Your task to perform on an android device: turn on the 24-hour format for clock Image 0: 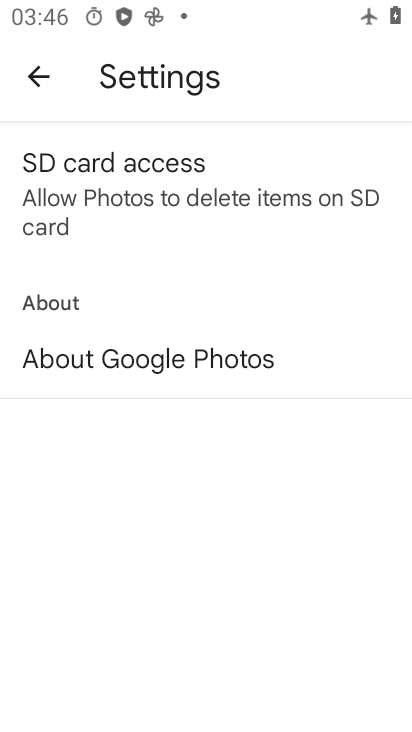
Step 0: press home button
Your task to perform on an android device: turn on the 24-hour format for clock Image 1: 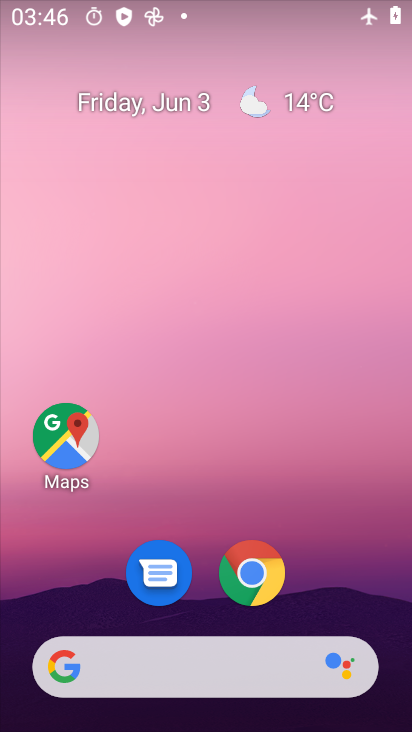
Step 1: drag from (294, 661) to (315, 54)
Your task to perform on an android device: turn on the 24-hour format for clock Image 2: 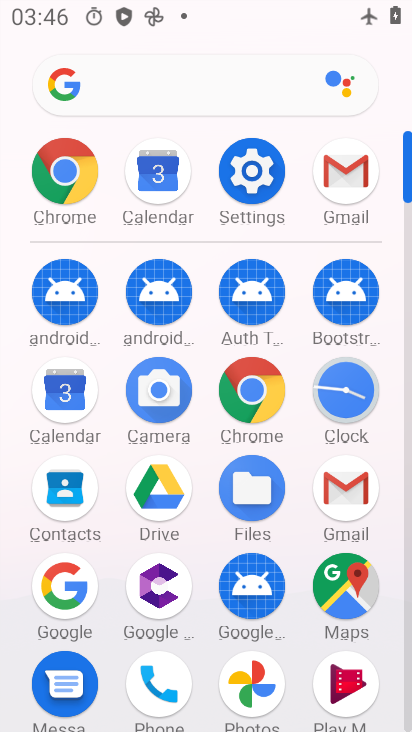
Step 2: click (365, 376)
Your task to perform on an android device: turn on the 24-hour format for clock Image 3: 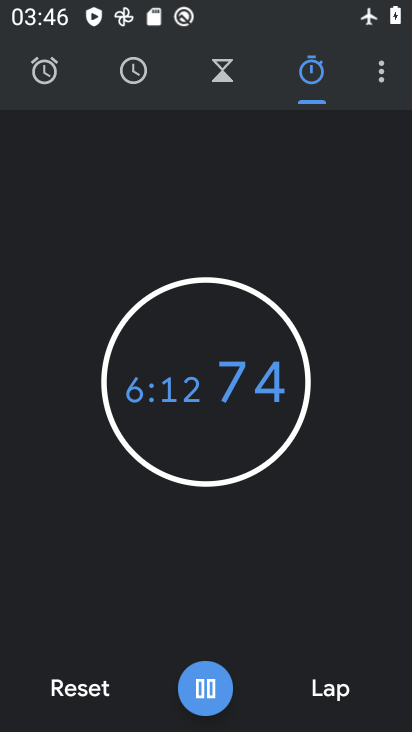
Step 3: click (372, 77)
Your task to perform on an android device: turn on the 24-hour format for clock Image 4: 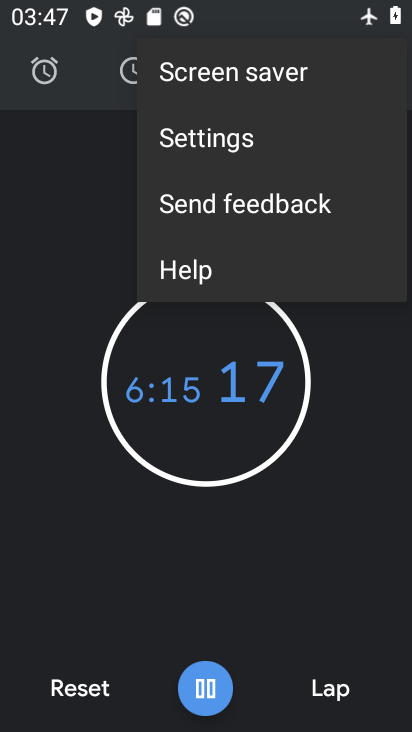
Step 4: click (251, 150)
Your task to perform on an android device: turn on the 24-hour format for clock Image 5: 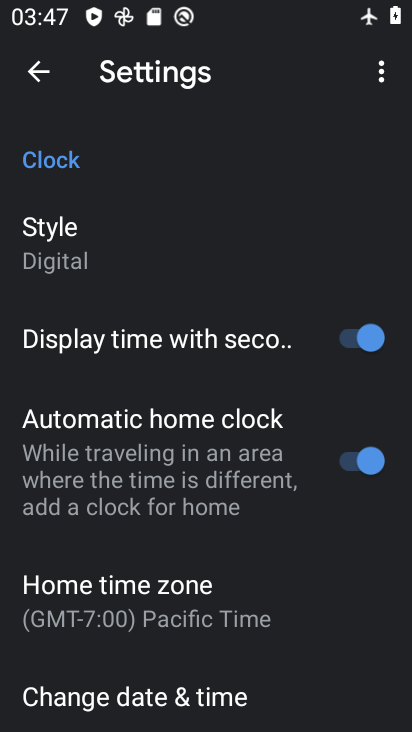
Step 5: click (220, 705)
Your task to perform on an android device: turn on the 24-hour format for clock Image 6: 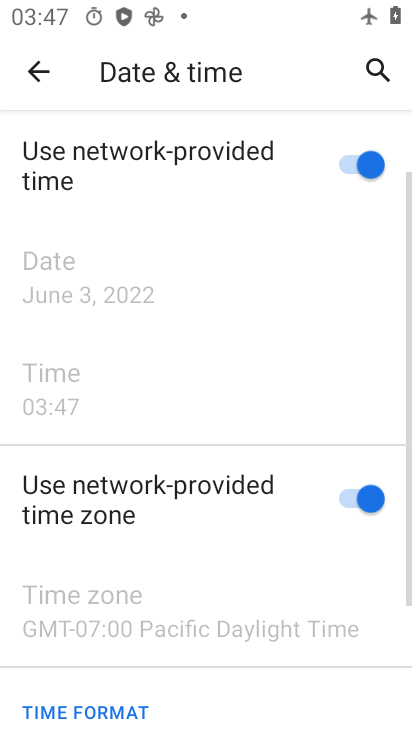
Step 6: task complete